Your task to perform on an android device: Open the stopwatch Image 0: 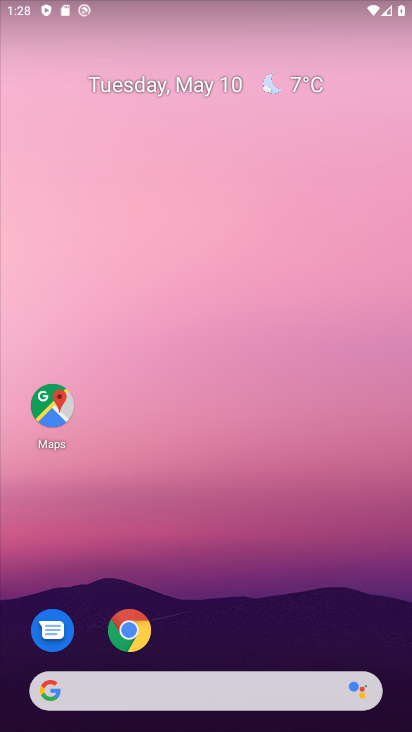
Step 0: drag from (211, 685) to (129, 79)
Your task to perform on an android device: Open the stopwatch Image 1: 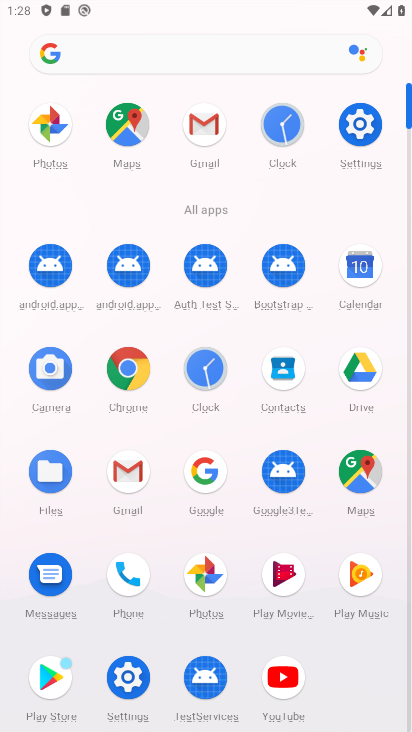
Step 1: click (207, 366)
Your task to perform on an android device: Open the stopwatch Image 2: 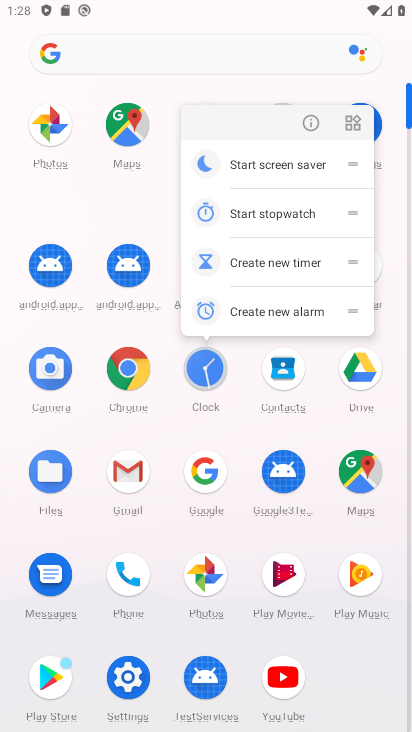
Step 2: click (250, 218)
Your task to perform on an android device: Open the stopwatch Image 3: 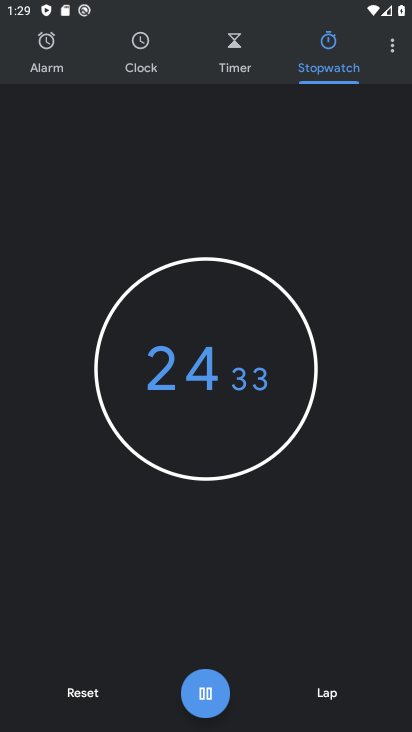
Step 3: click (211, 683)
Your task to perform on an android device: Open the stopwatch Image 4: 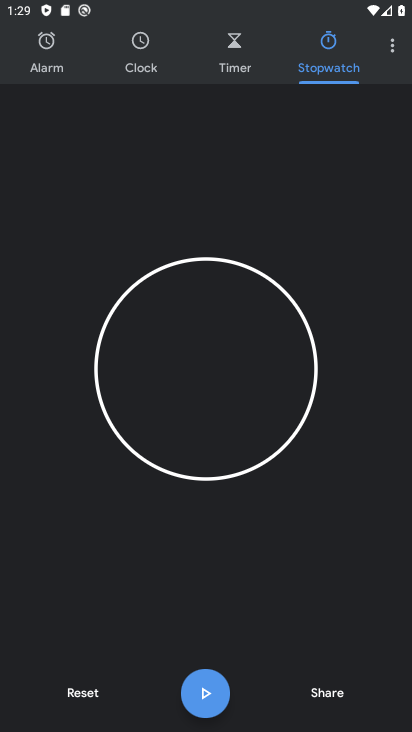
Step 4: task complete